Your task to perform on an android device: turn notification dots on Image 0: 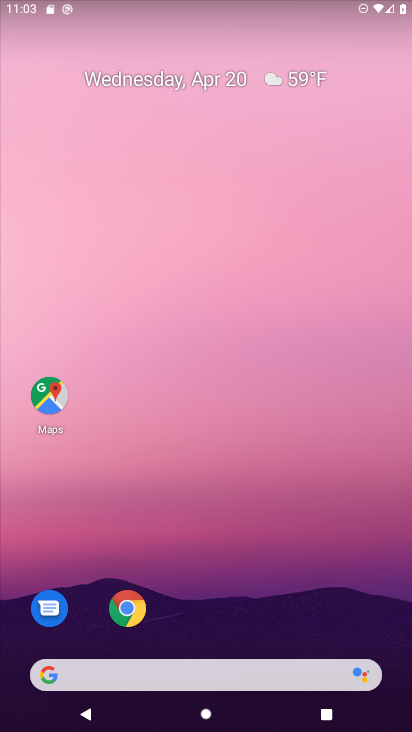
Step 0: drag from (303, 583) to (298, 115)
Your task to perform on an android device: turn notification dots on Image 1: 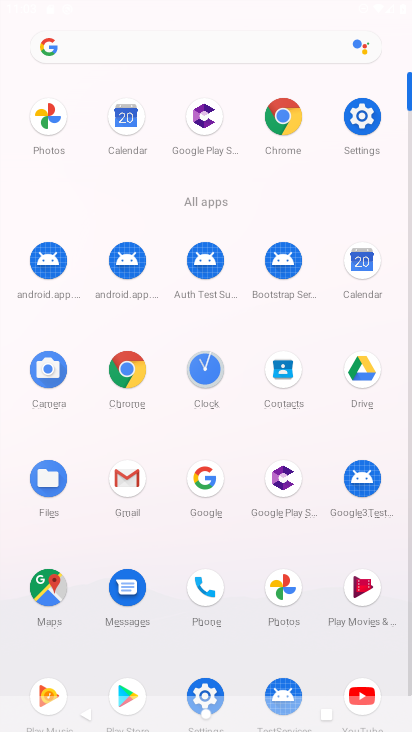
Step 1: click (371, 125)
Your task to perform on an android device: turn notification dots on Image 2: 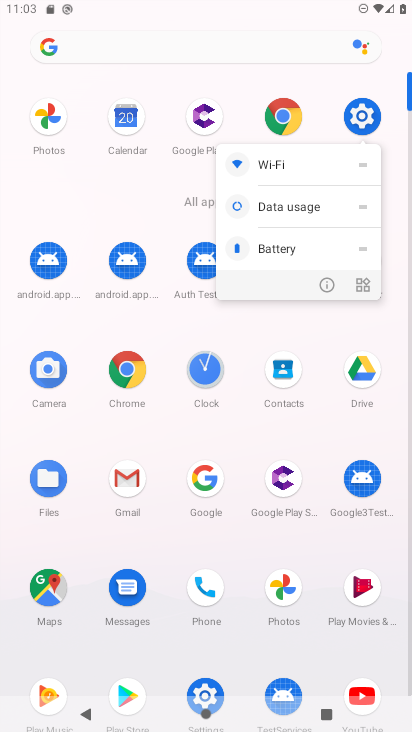
Step 2: click (359, 118)
Your task to perform on an android device: turn notification dots on Image 3: 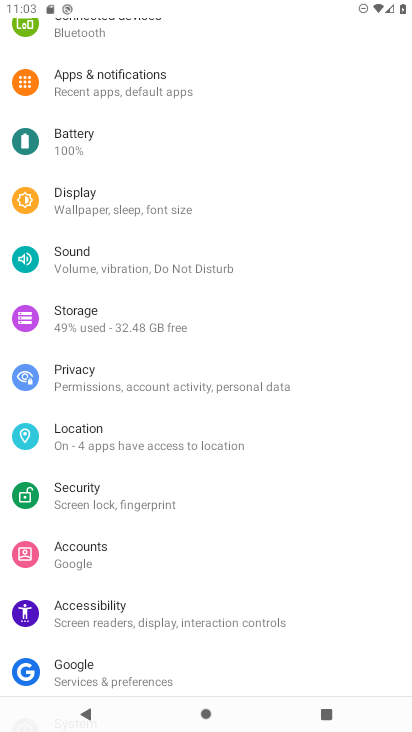
Step 3: drag from (262, 173) to (256, 418)
Your task to perform on an android device: turn notification dots on Image 4: 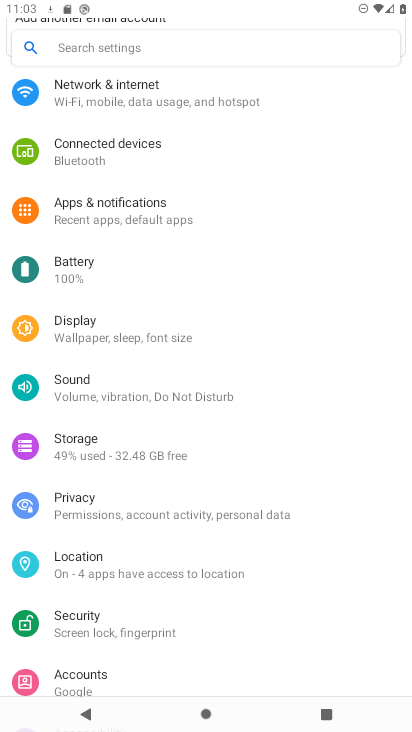
Step 4: click (219, 217)
Your task to perform on an android device: turn notification dots on Image 5: 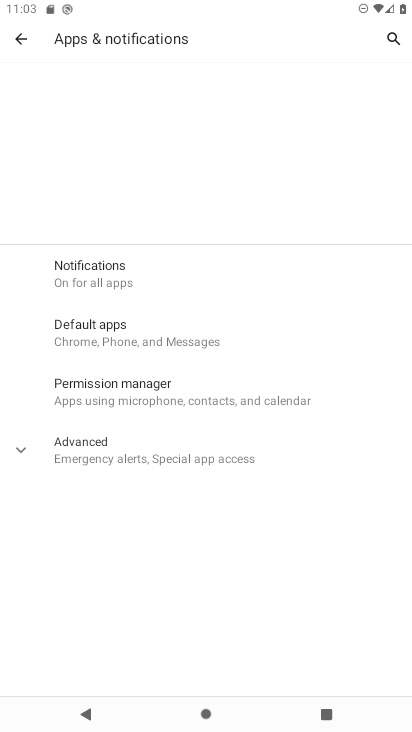
Step 5: click (140, 271)
Your task to perform on an android device: turn notification dots on Image 6: 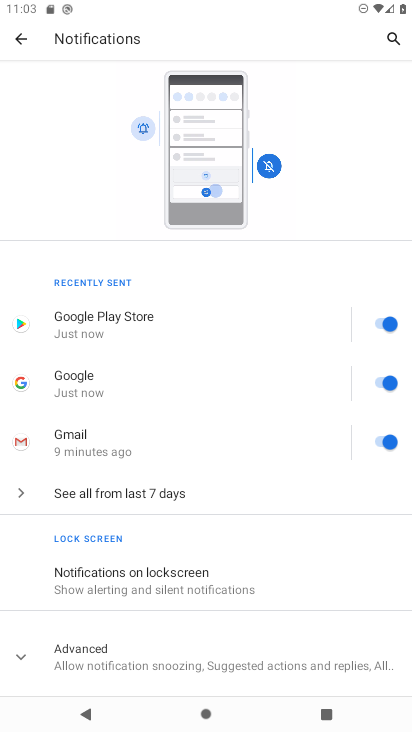
Step 6: drag from (201, 635) to (218, 378)
Your task to perform on an android device: turn notification dots on Image 7: 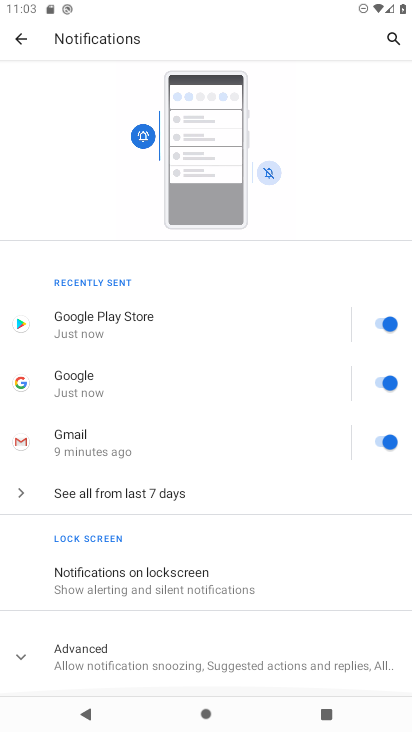
Step 7: click (20, 660)
Your task to perform on an android device: turn notification dots on Image 8: 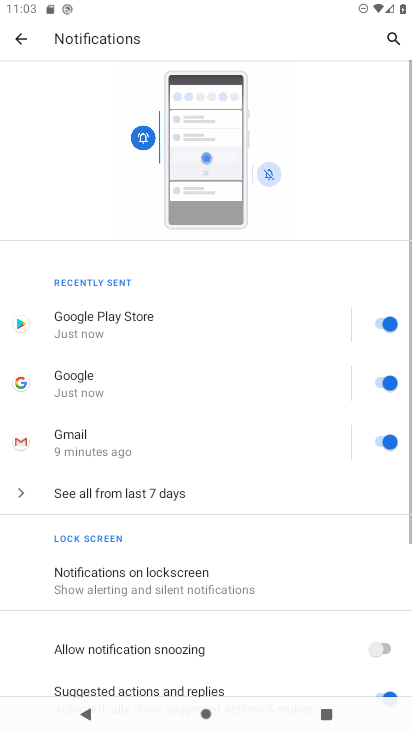
Step 8: task complete